Your task to perform on an android device: Go to Yahoo.com Image 0: 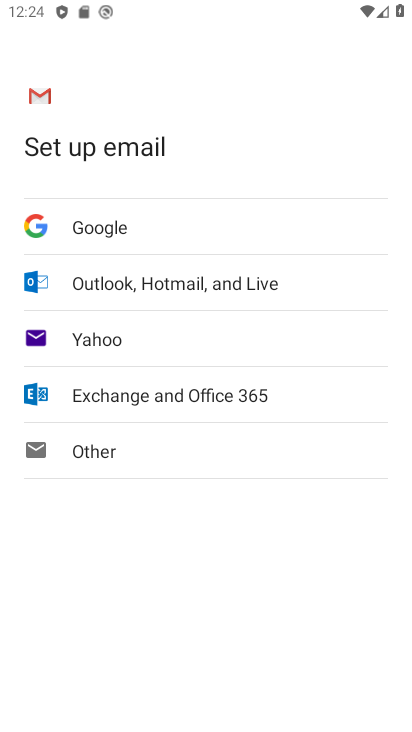
Step 0: press home button
Your task to perform on an android device: Go to Yahoo.com Image 1: 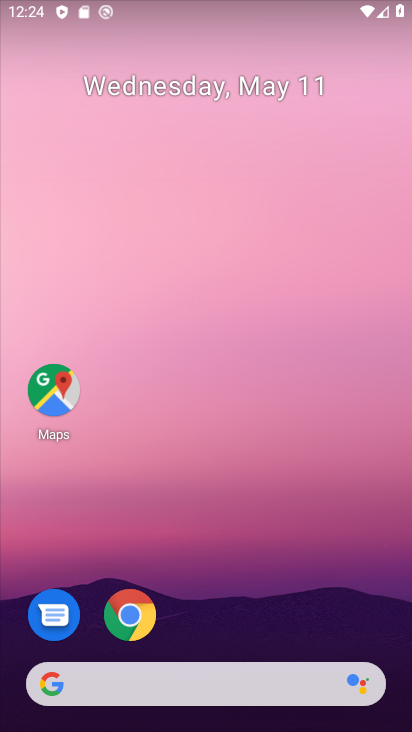
Step 1: drag from (322, 520) to (321, 87)
Your task to perform on an android device: Go to Yahoo.com Image 2: 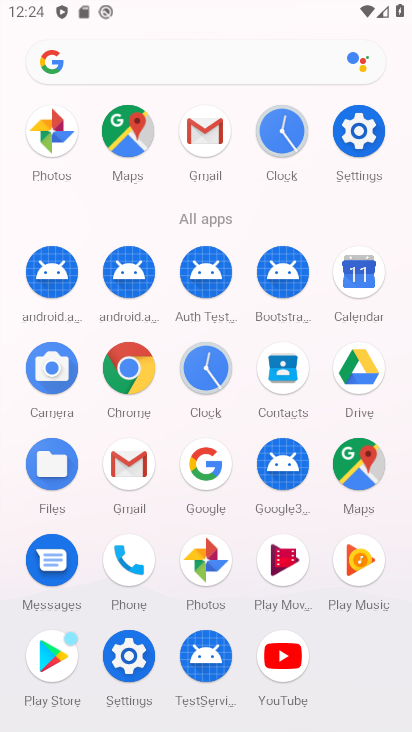
Step 2: click (137, 368)
Your task to perform on an android device: Go to Yahoo.com Image 3: 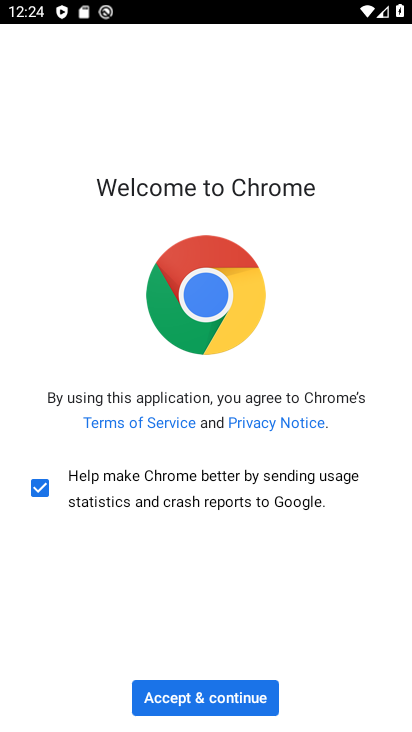
Step 3: click (224, 698)
Your task to perform on an android device: Go to Yahoo.com Image 4: 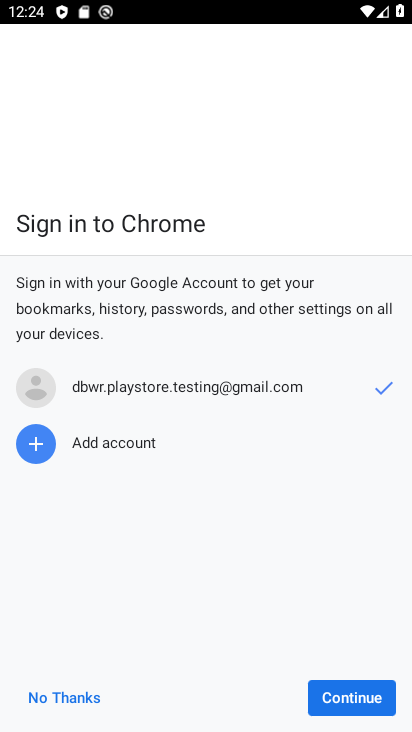
Step 4: click (89, 704)
Your task to perform on an android device: Go to Yahoo.com Image 5: 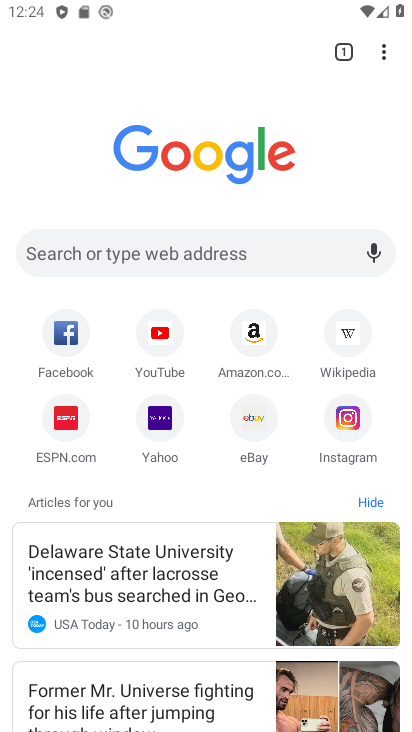
Step 5: click (159, 417)
Your task to perform on an android device: Go to Yahoo.com Image 6: 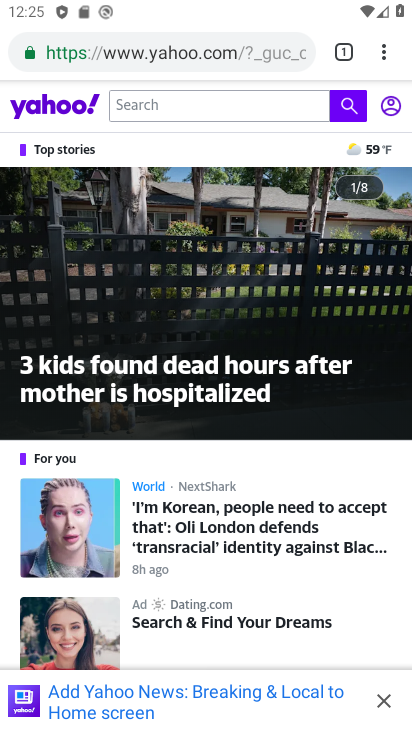
Step 6: task complete